Your task to perform on an android device: Open wifi settings Image 0: 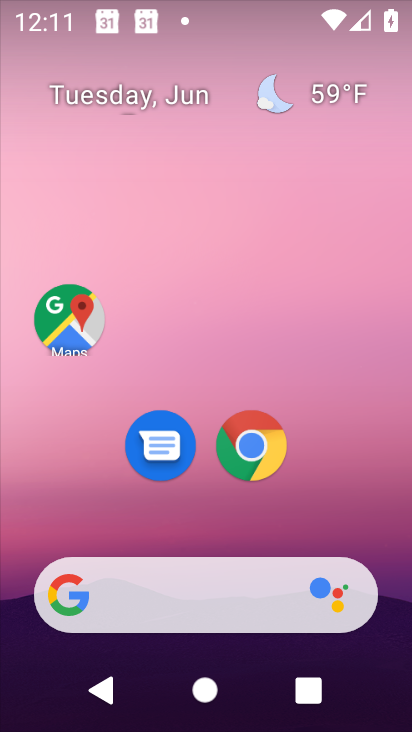
Step 0: drag from (248, 9) to (245, 704)
Your task to perform on an android device: Open wifi settings Image 1: 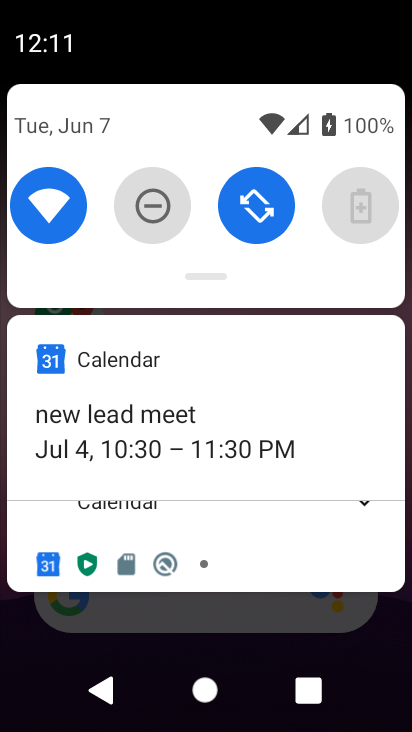
Step 1: click (52, 208)
Your task to perform on an android device: Open wifi settings Image 2: 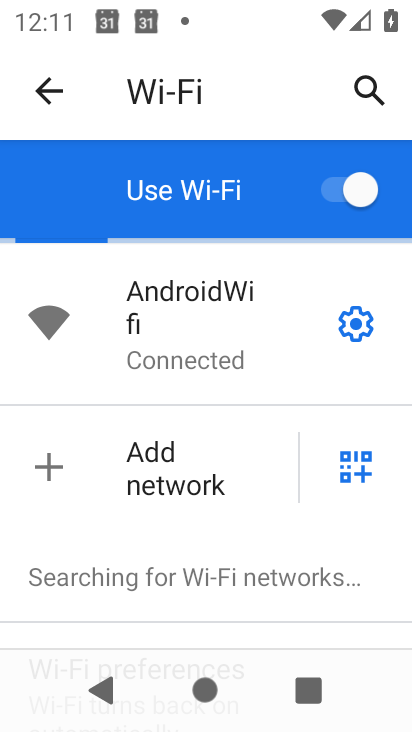
Step 2: task complete